Your task to perform on an android device: toggle javascript in the chrome app Image 0: 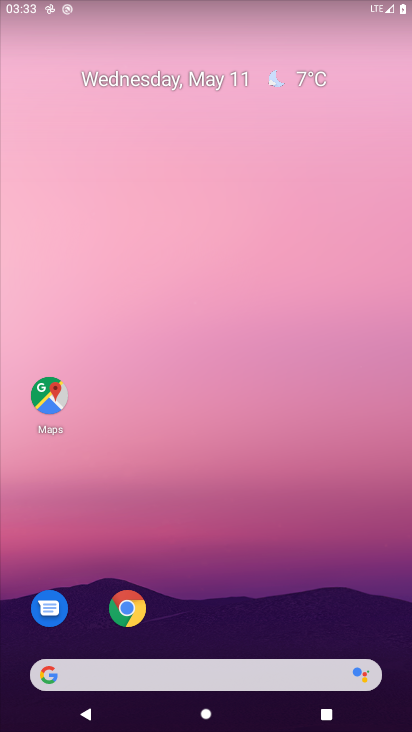
Step 0: drag from (192, 643) to (201, 225)
Your task to perform on an android device: toggle javascript in the chrome app Image 1: 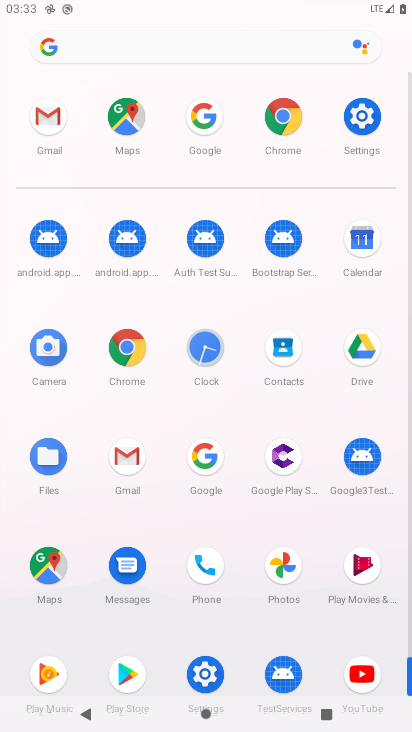
Step 1: click (119, 352)
Your task to perform on an android device: toggle javascript in the chrome app Image 2: 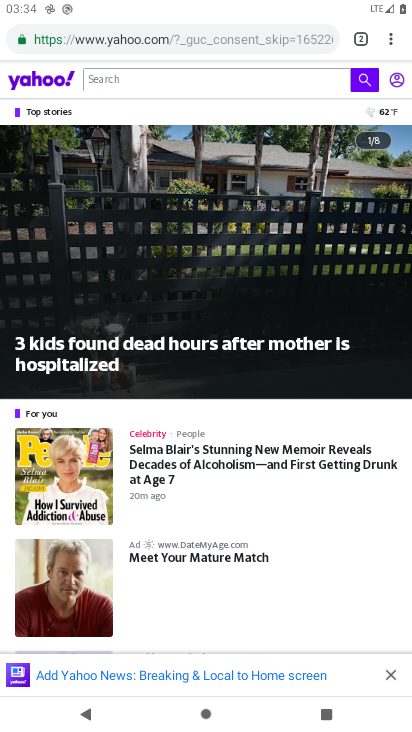
Step 2: click (393, 40)
Your task to perform on an android device: toggle javascript in the chrome app Image 3: 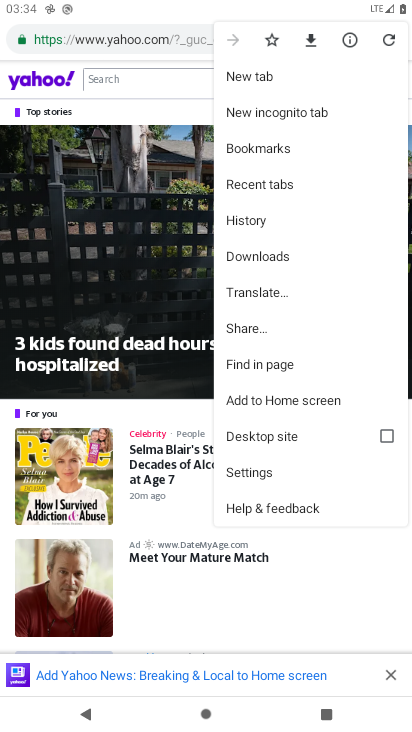
Step 3: click (269, 467)
Your task to perform on an android device: toggle javascript in the chrome app Image 4: 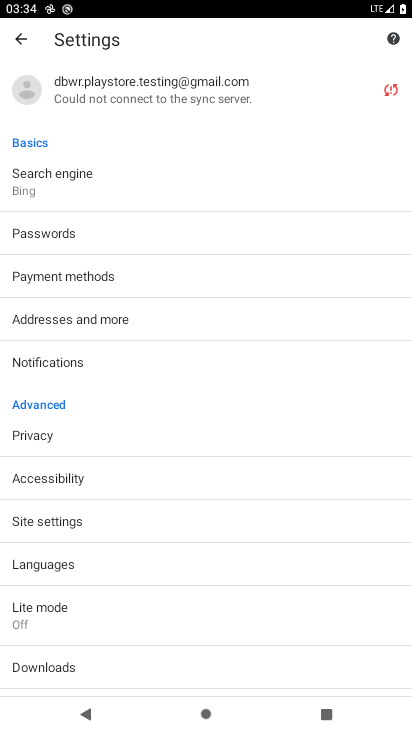
Step 4: click (63, 522)
Your task to perform on an android device: toggle javascript in the chrome app Image 5: 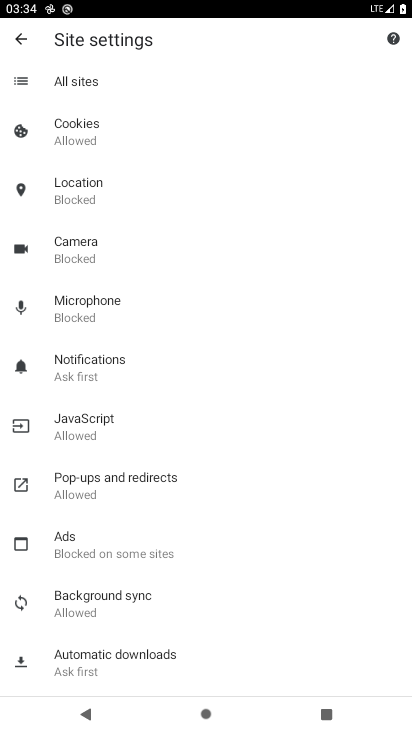
Step 5: click (122, 422)
Your task to perform on an android device: toggle javascript in the chrome app Image 6: 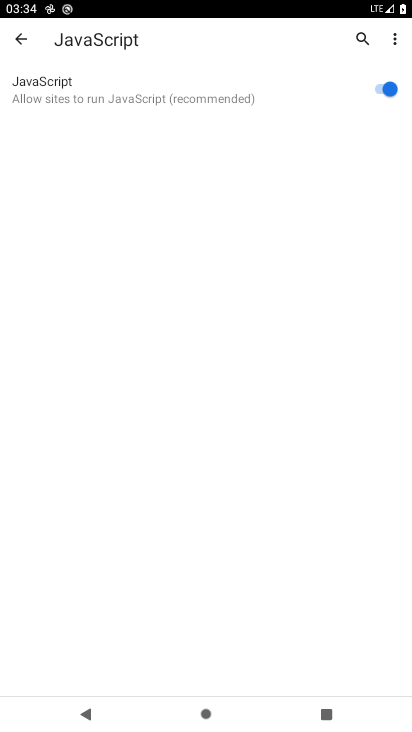
Step 6: click (375, 86)
Your task to perform on an android device: toggle javascript in the chrome app Image 7: 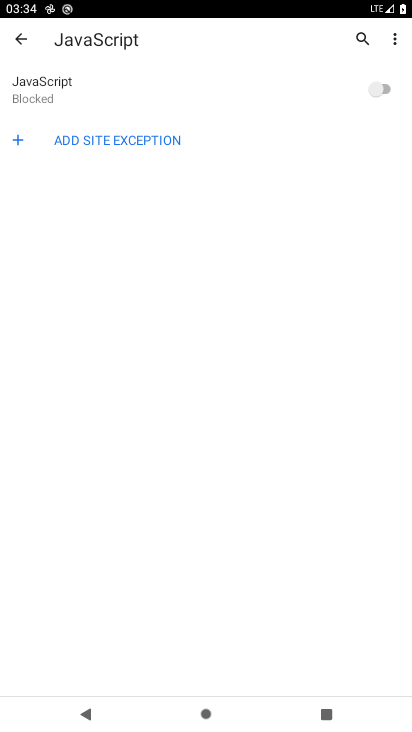
Step 7: task complete